Your task to perform on an android device: uninstall "DoorDash - Dasher" Image 0: 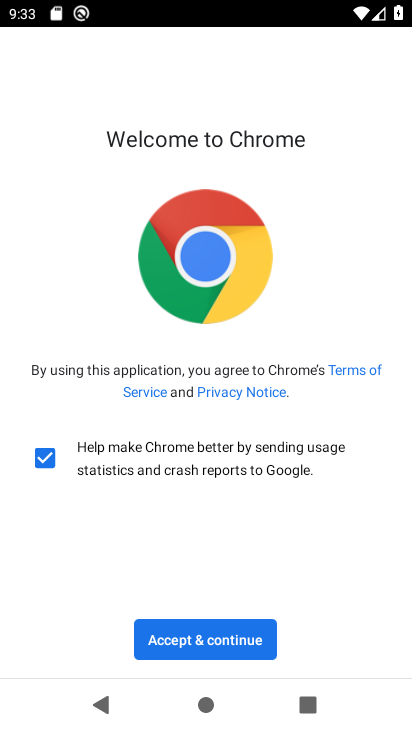
Step 0: press home button
Your task to perform on an android device: uninstall "DoorDash - Dasher" Image 1: 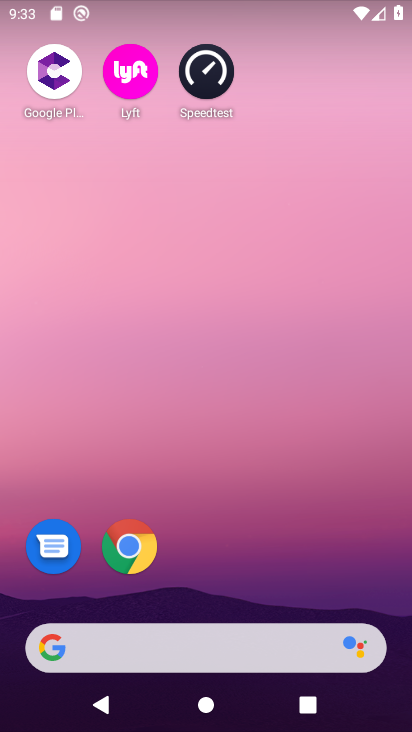
Step 1: drag from (224, 585) to (243, 7)
Your task to perform on an android device: uninstall "DoorDash - Dasher" Image 2: 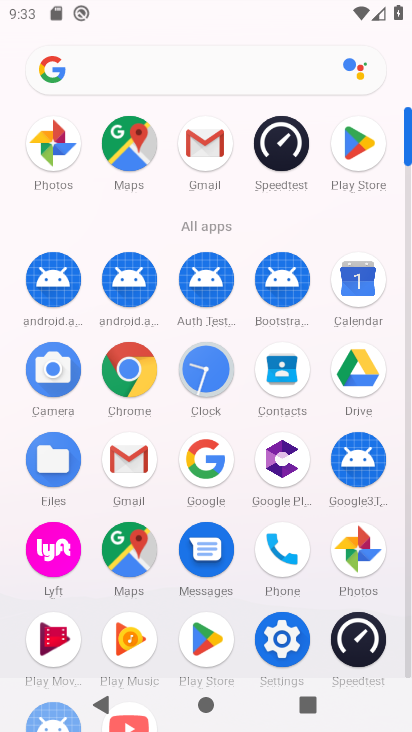
Step 2: click (354, 135)
Your task to perform on an android device: uninstall "DoorDash - Dasher" Image 3: 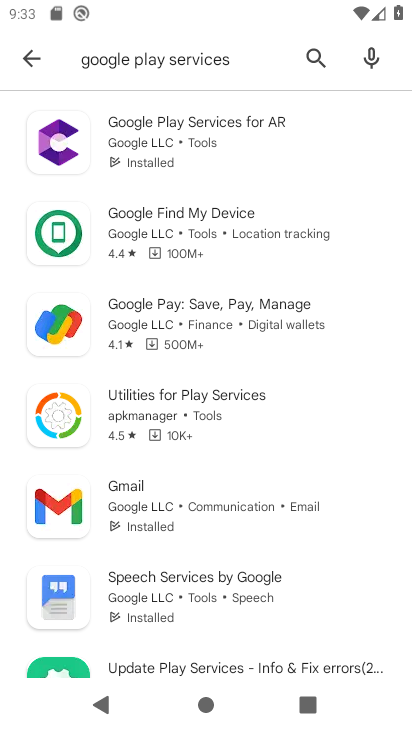
Step 3: click (312, 57)
Your task to perform on an android device: uninstall "DoorDash - Dasher" Image 4: 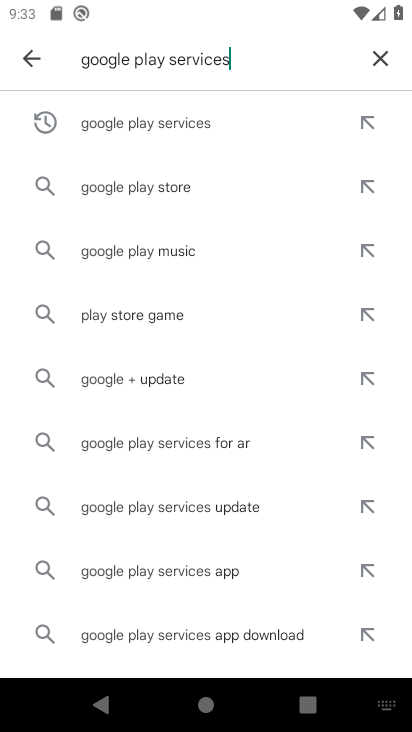
Step 4: click (377, 62)
Your task to perform on an android device: uninstall "DoorDash - Dasher" Image 5: 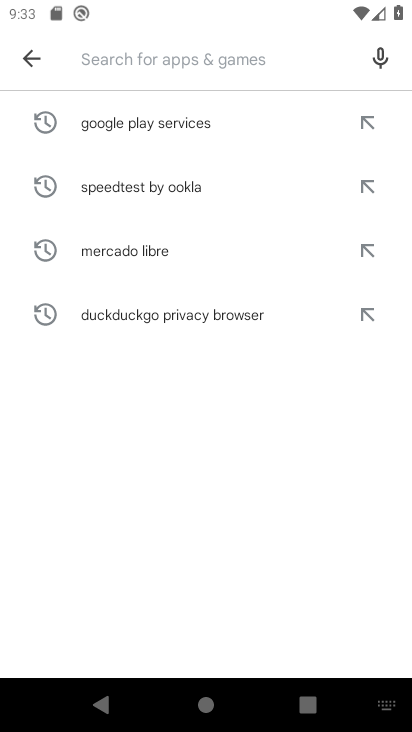
Step 5: type "DoorDash - Dasher"
Your task to perform on an android device: uninstall "DoorDash - Dasher" Image 6: 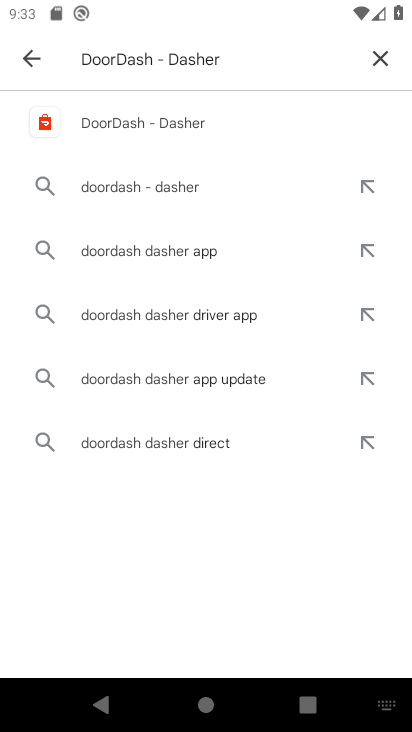
Step 6: click (147, 116)
Your task to perform on an android device: uninstall "DoorDash - Dasher" Image 7: 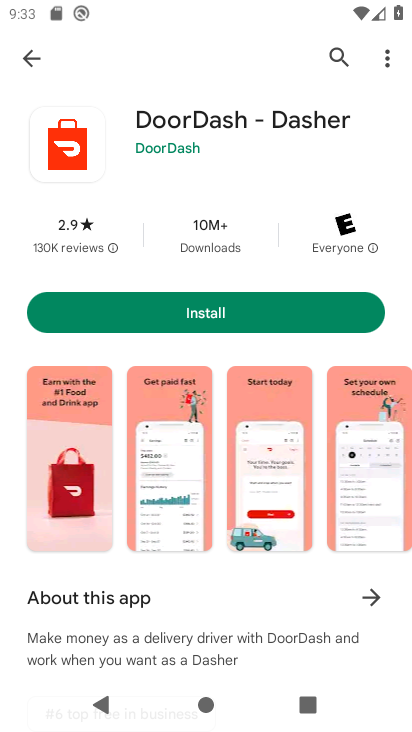
Step 7: task complete